Your task to perform on an android device: change the clock display to digital Image 0: 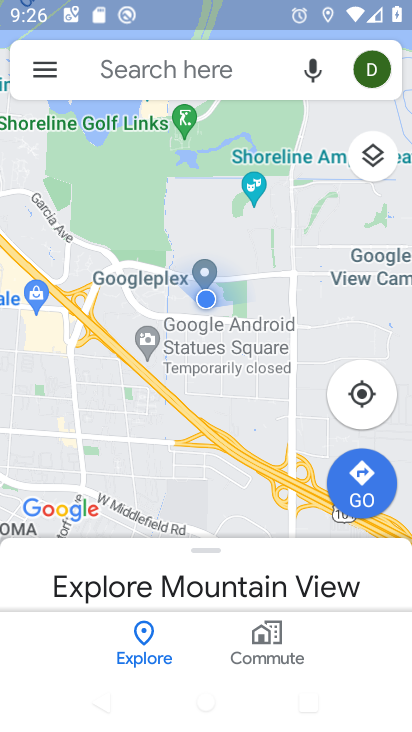
Step 0: press home button
Your task to perform on an android device: change the clock display to digital Image 1: 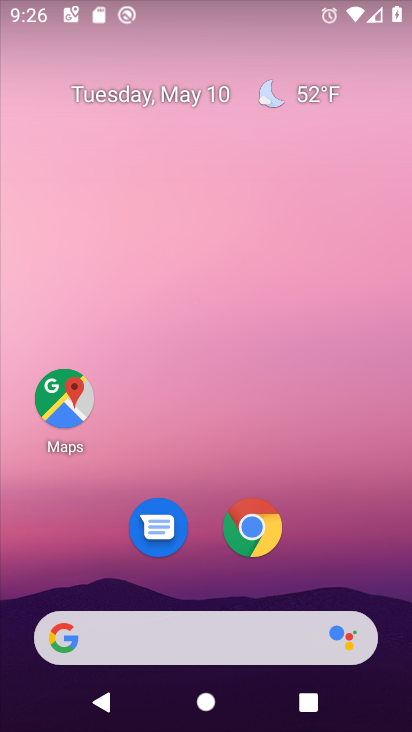
Step 1: drag from (294, 429) to (211, 132)
Your task to perform on an android device: change the clock display to digital Image 2: 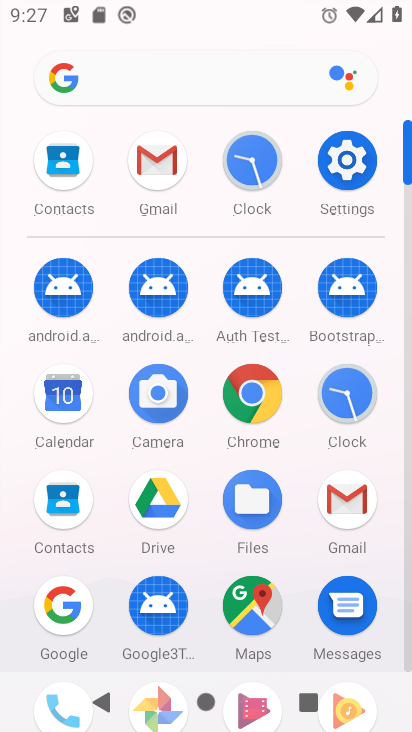
Step 2: click (342, 398)
Your task to perform on an android device: change the clock display to digital Image 3: 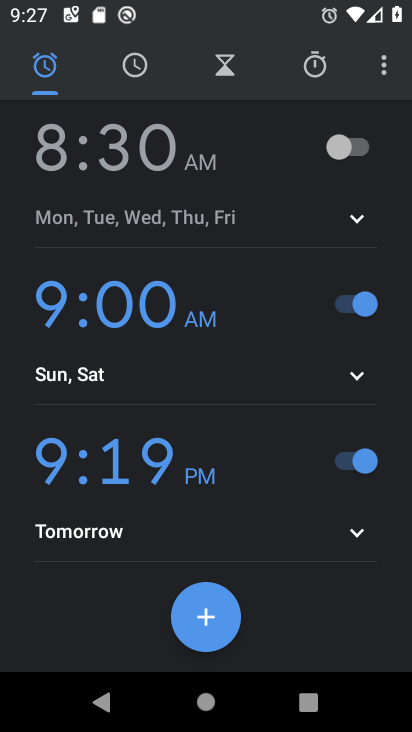
Step 3: click (379, 73)
Your task to perform on an android device: change the clock display to digital Image 4: 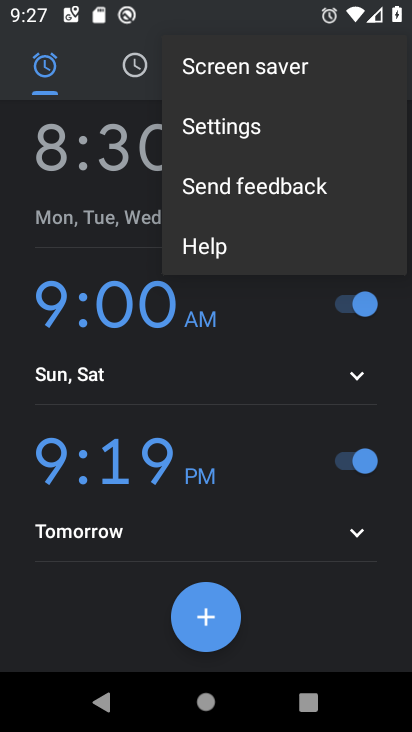
Step 4: click (225, 125)
Your task to perform on an android device: change the clock display to digital Image 5: 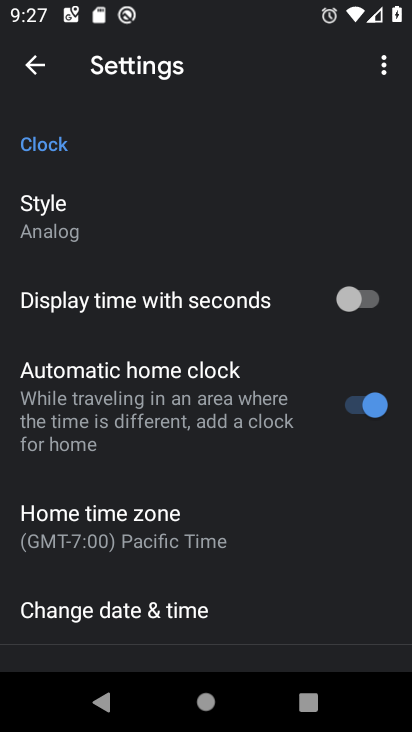
Step 5: click (38, 227)
Your task to perform on an android device: change the clock display to digital Image 6: 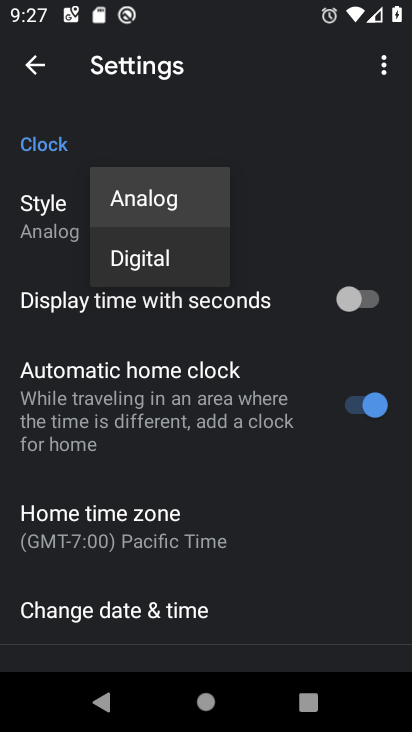
Step 6: click (162, 254)
Your task to perform on an android device: change the clock display to digital Image 7: 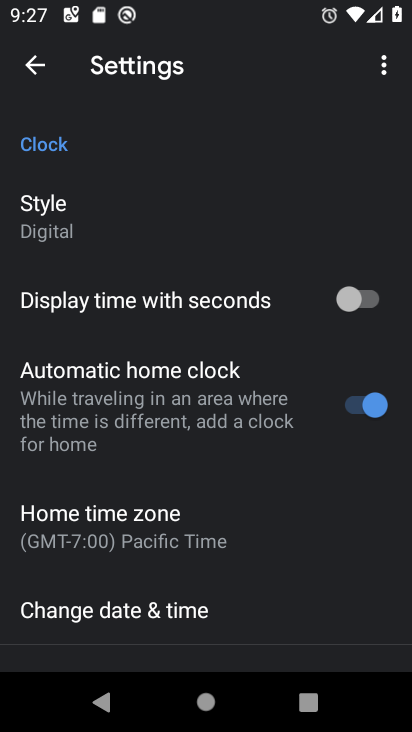
Step 7: task complete